Your task to perform on an android device: Turn off the flashlight Image 0: 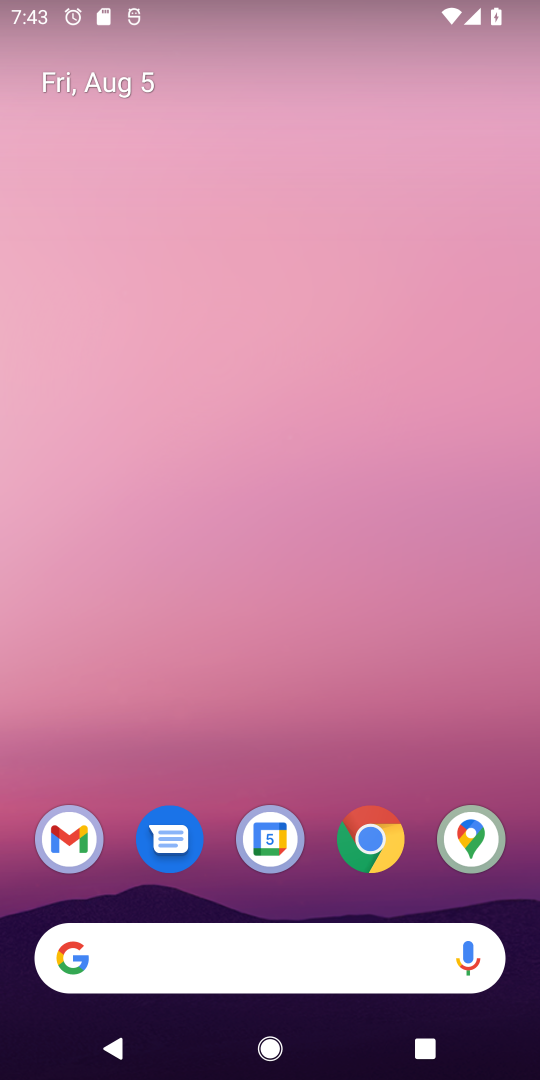
Step 0: drag from (243, 752) to (243, 146)
Your task to perform on an android device: Turn off the flashlight Image 1: 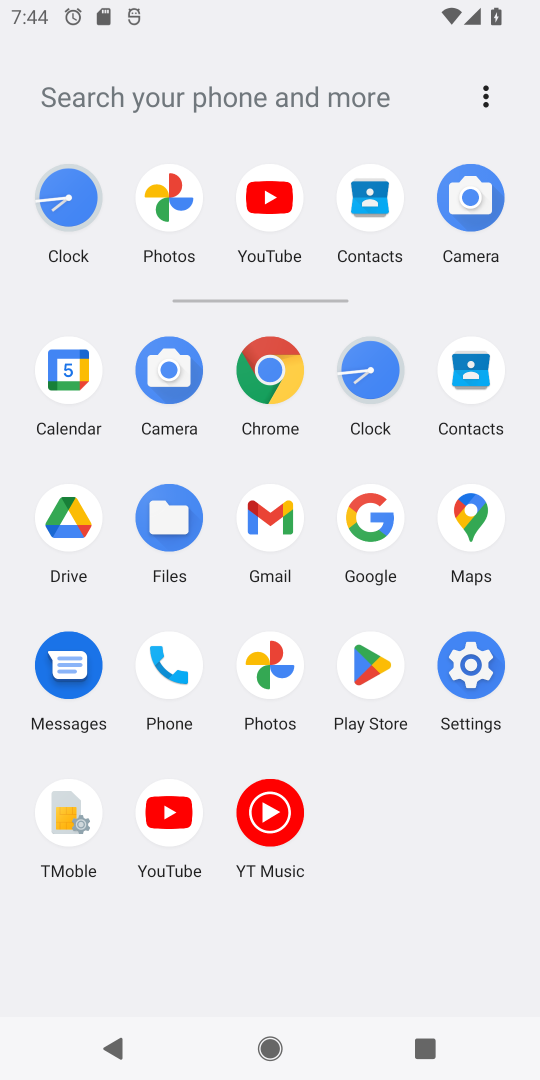
Step 1: click (444, 668)
Your task to perform on an android device: Turn off the flashlight Image 2: 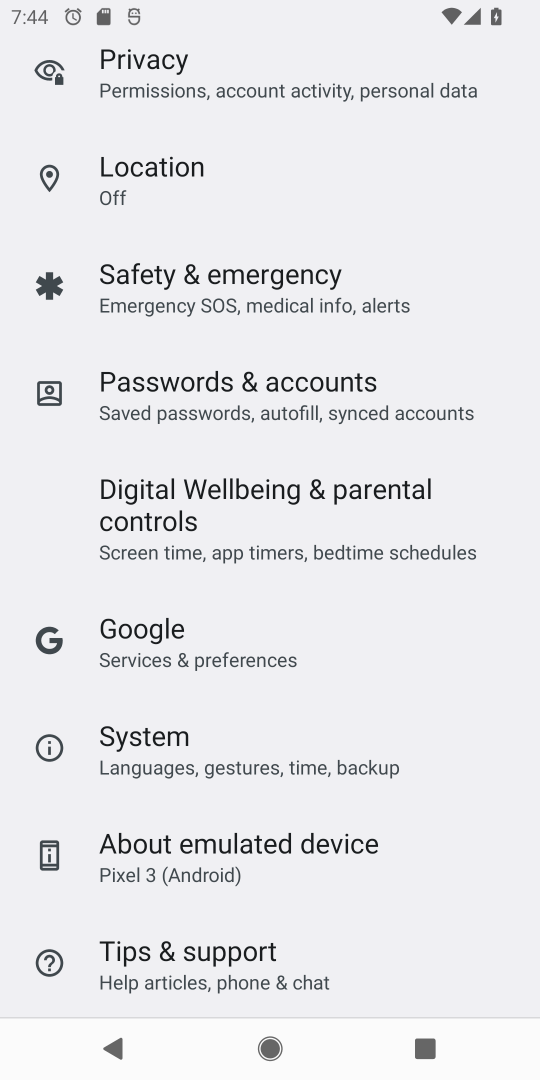
Step 2: task complete